Your task to perform on an android device: show emergency info Image 0: 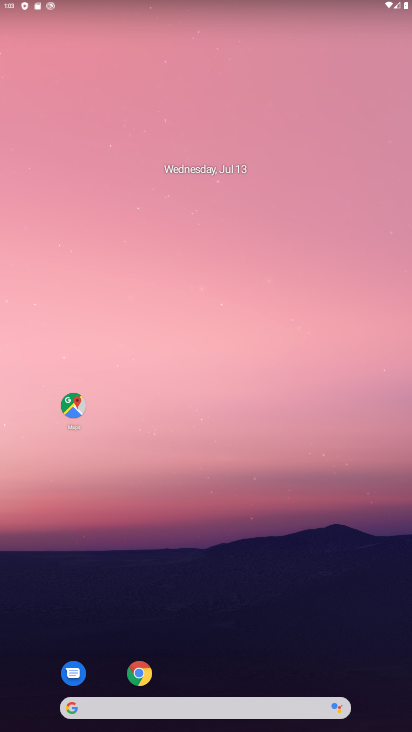
Step 0: drag from (202, 679) to (228, 85)
Your task to perform on an android device: show emergency info Image 1: 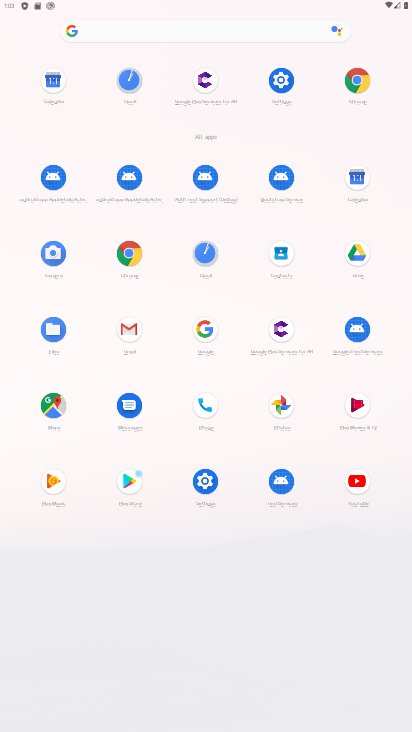
Step 1: click (213, 491)
Your task to perform on an android device: show emergency info Image 2: 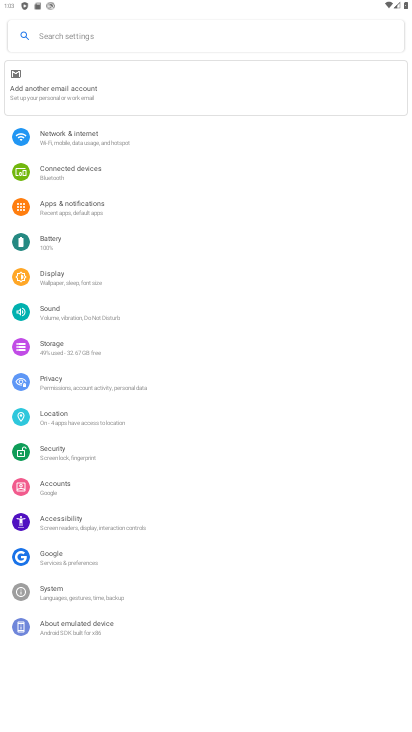
Step 2: click (103, 635)
Your task to perform on an android device: show emergency info Image 3: 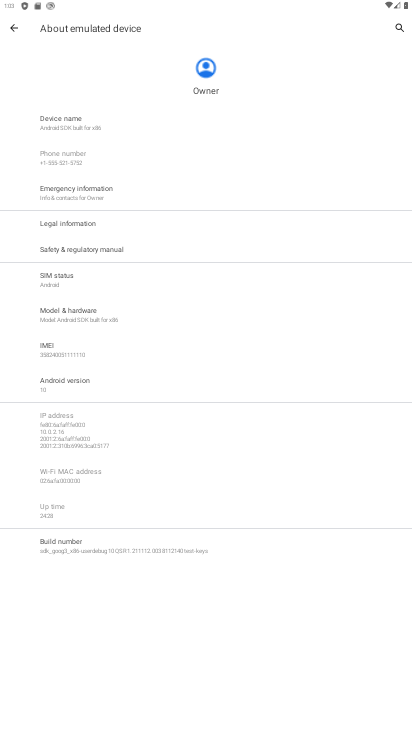
Step 3: click (85, 187)
Your task to perform on an android device: show emergency info Image 4: 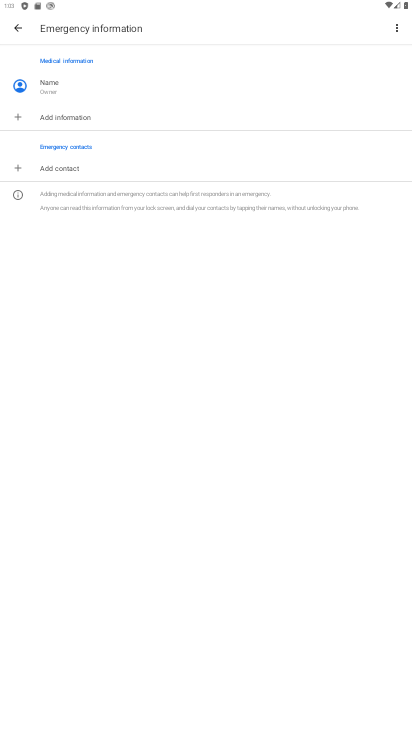
Step 4: task complete